Your task to perform on an android device: Add "razer kraken" to the cart on costco.com, then select checkout. Image 0: 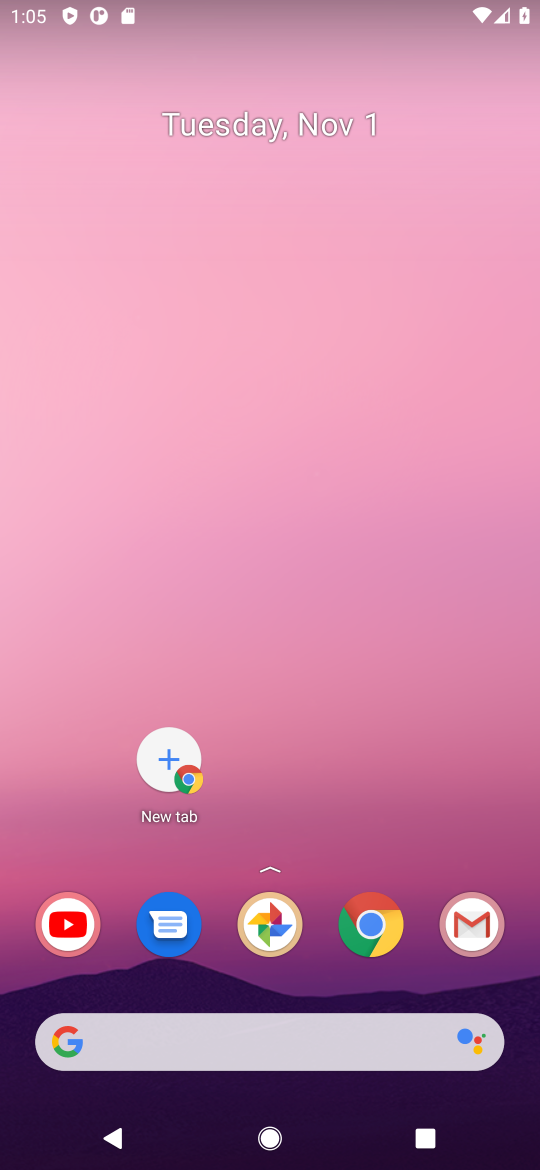
Step 0: click (386, 931)
Your task to perform on an android device: Add "razer kraken" to the cart on costco.com, then select checkout. Image 1: 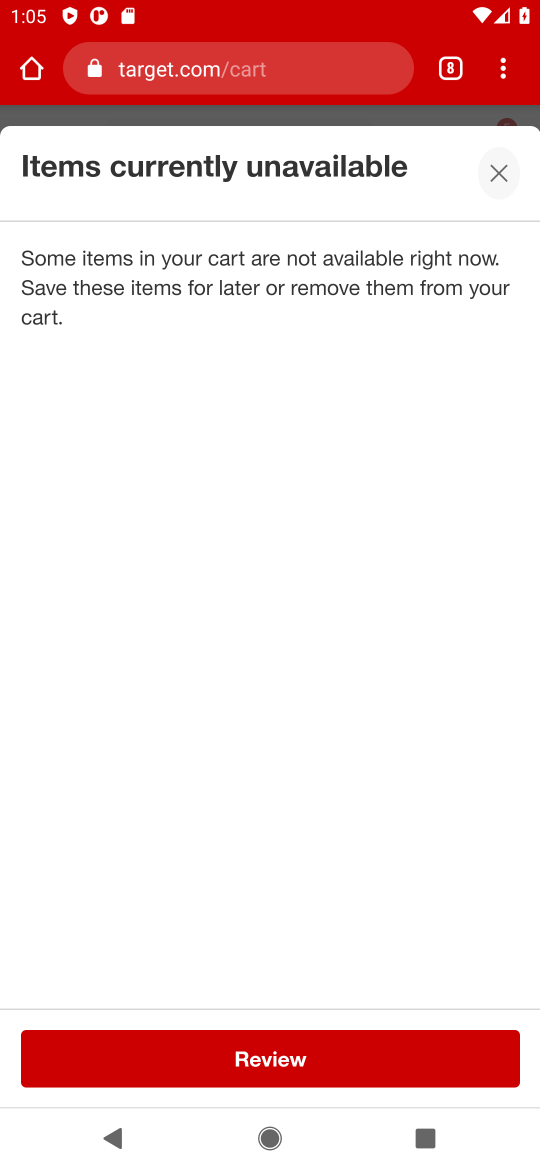
Step 1: click (262, 81)
Your task to perform on an android device: Add "razer kraken" to the cart on costco.com, then select checkout. Image 2: 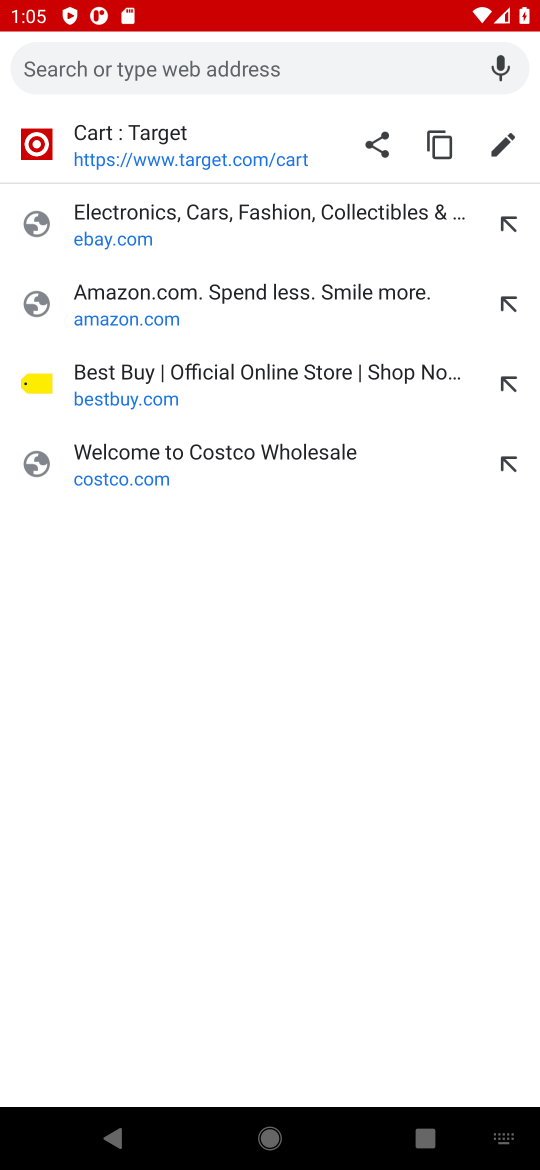
Step 2: type "costco.com"
Your task to perform on an android device: Add "razer kraken" to the cart on costco.com, then select checkout. Image 3: 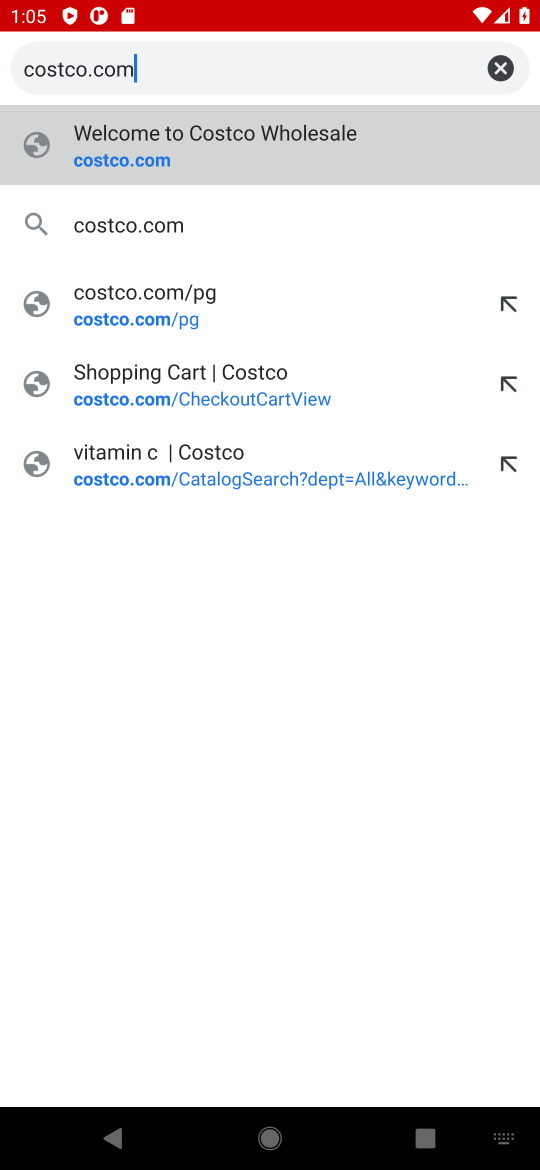
Step 3: click (162, 136)
Your task to perform on an android device: Add "razer kraken" to the cart on costco.com, then select checkout. Image 4: 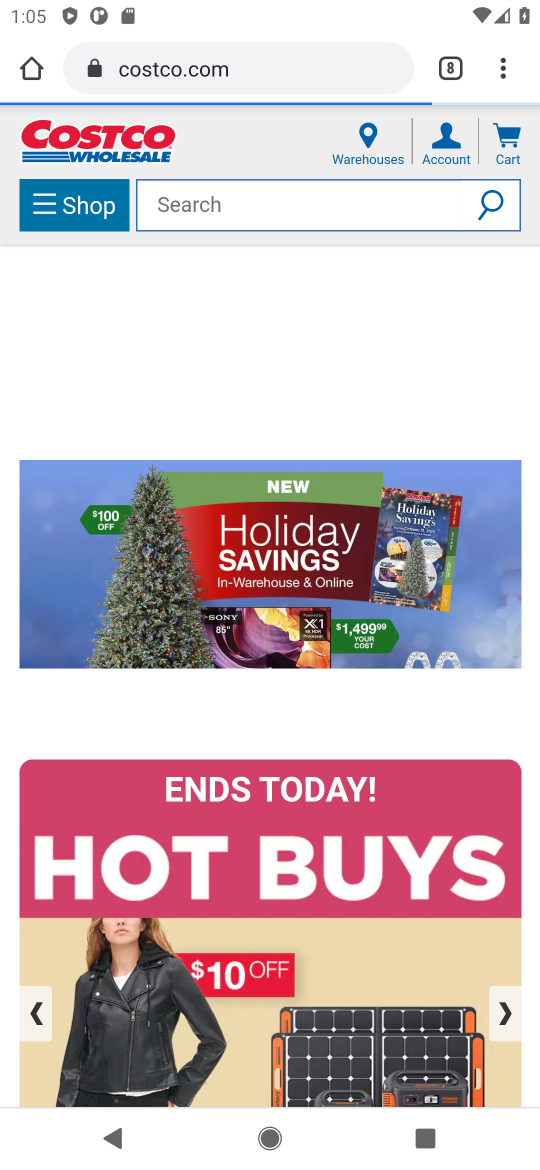
Step 4: click (315, 199)
Your task to perform on an android device: Add "razer kraken" to the cart on costco.com, then select checkout. Image 5: 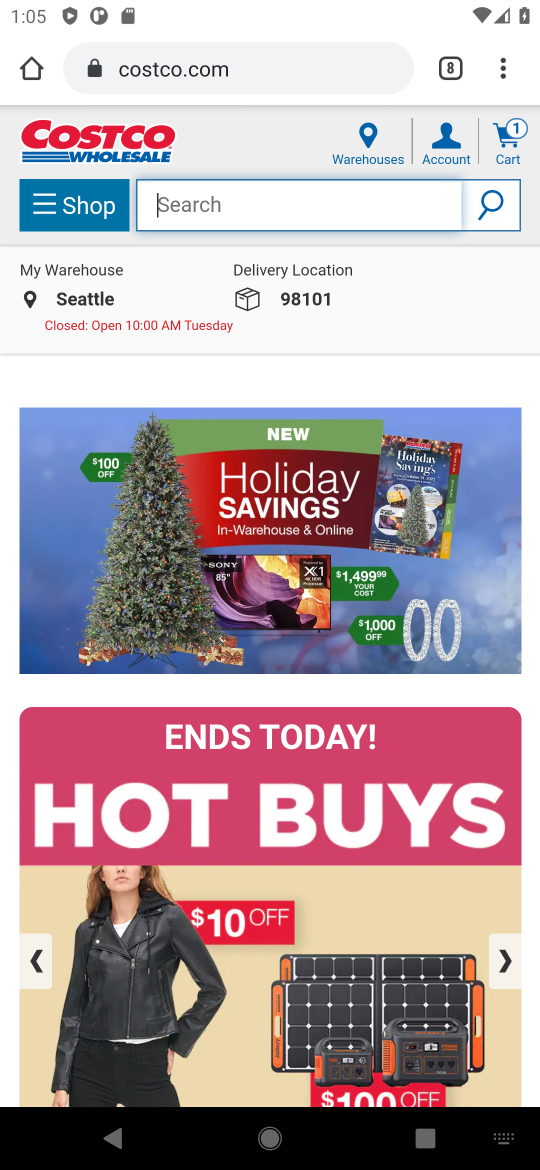
Step 5: type "razer kraken"
Your task to perform on an android device: Add "razer kraken" to the cart on costco.com, then select checkout. Image 6: 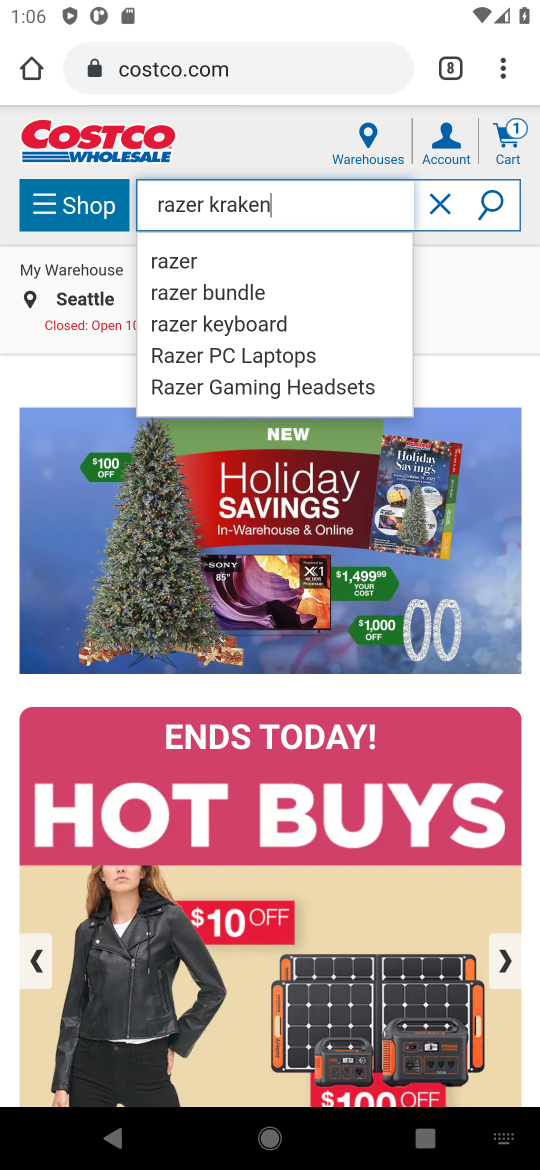
Step 6: click (176, 256)
Your task to perform on an android device: Add "razer kraken" to the cart on costco.com, then select checkout. Image 7: 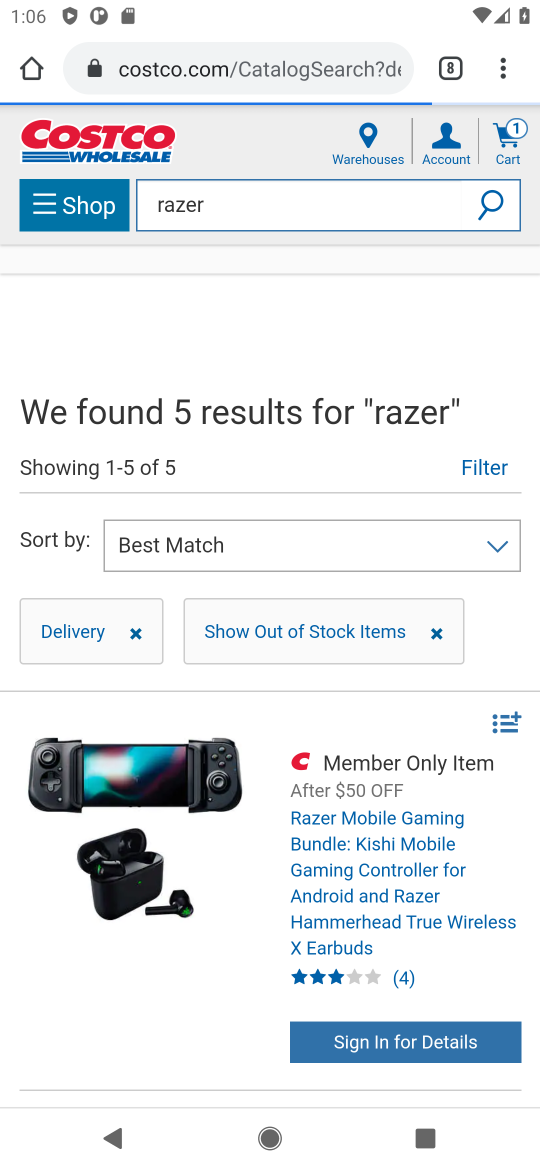
Step 7: drag from (311, 907) to (408, 276)
Your task to perform on an android device: Add "razer kraken" to the cart on costco.com, then select checkout. Image 8: 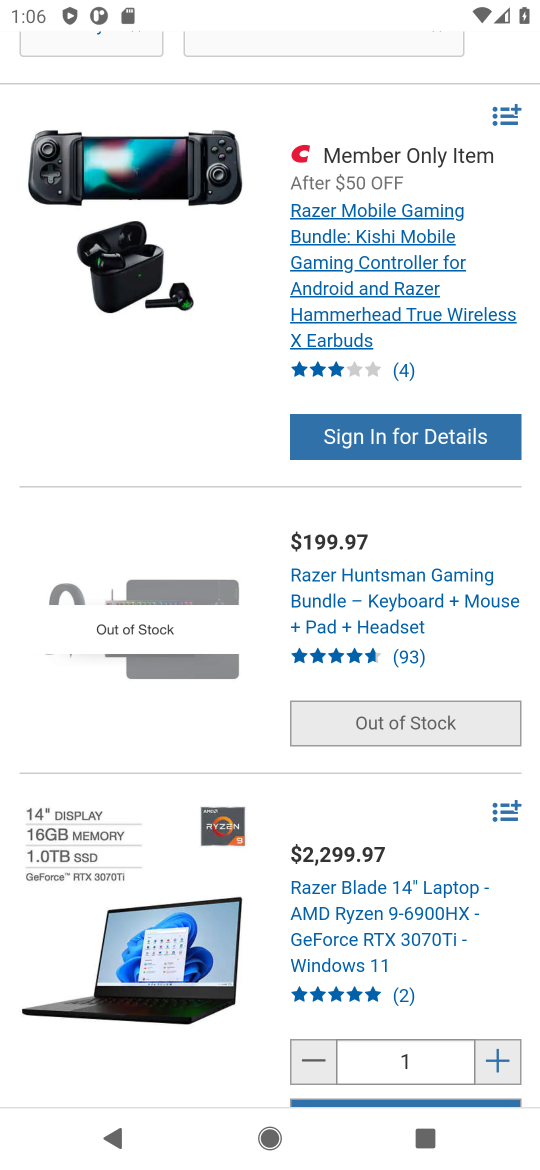
Step 8: drag from (367, 951) to (399, 438)
Your task to perform on an android device: Add "razer kraken" to the cart on costco.com, then select checkout. Image 9: 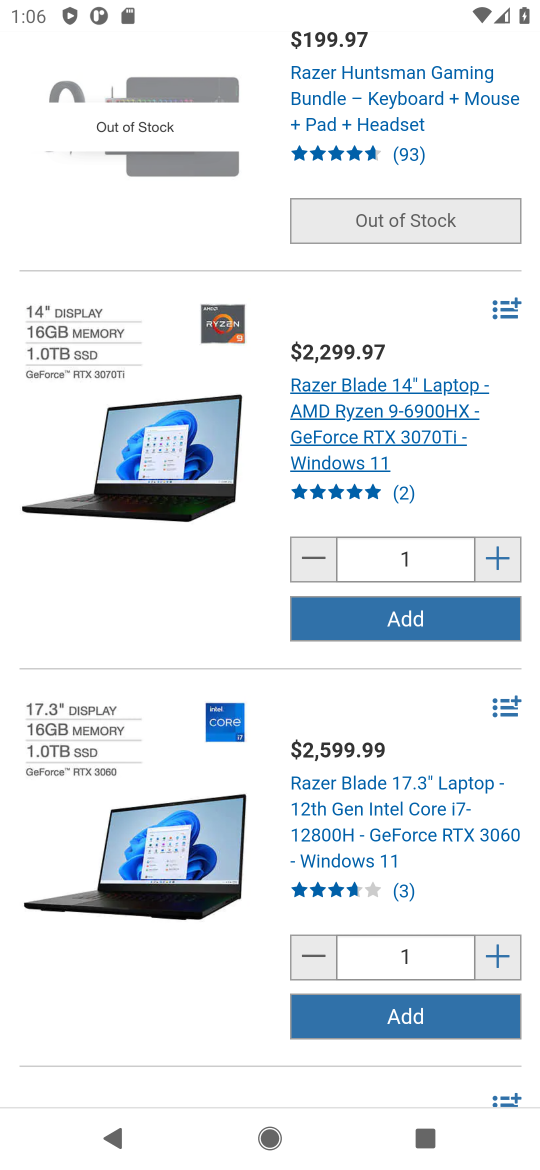
Step 9: drag from (274, 242) to (234, 794)
Your task to perform on an android device: Add "razer kraken" to the cart on costco.com, then select checkout. Image 10: 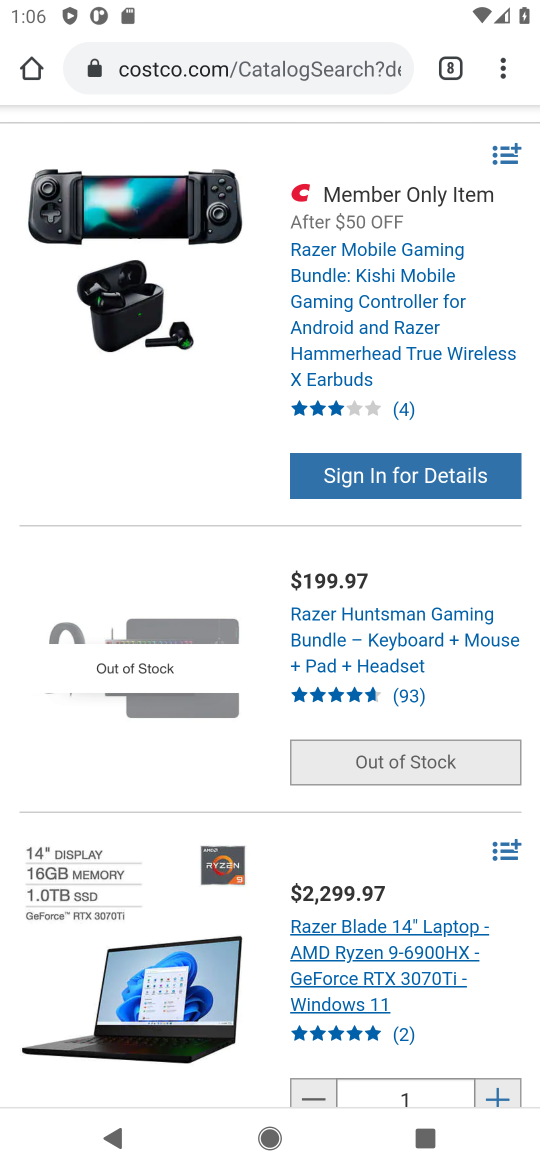
Step 10: click (322, 266)
Your task to perform on an android device: Add "razer kraken" to the cart on costco.com, then select checkout. Image 11: 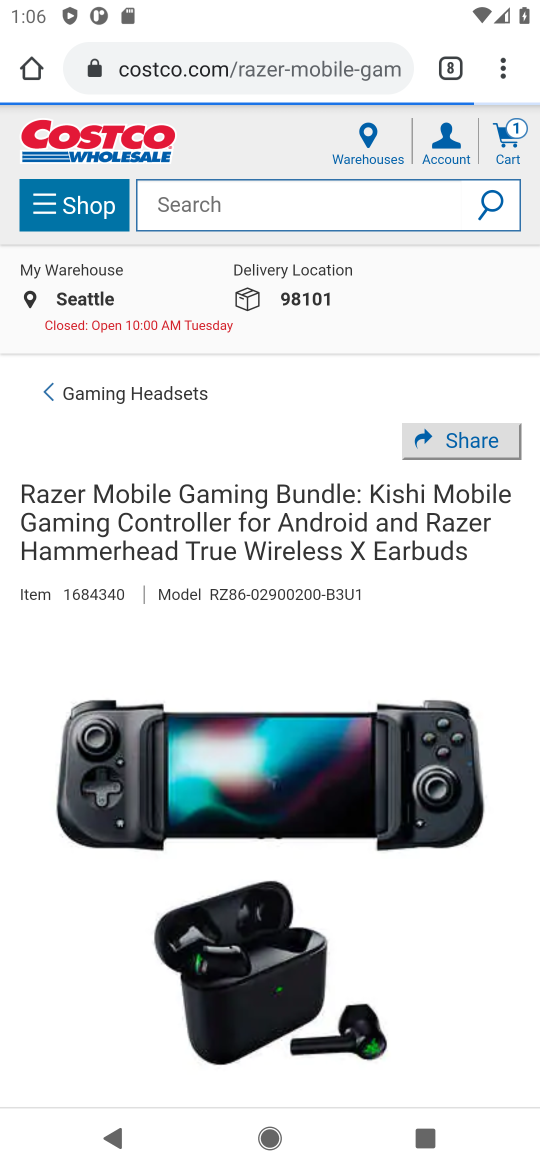
Step 11: drag from (274, 666) to (337, 153)
Your task to perform on an android device: Add "razer kraken" to the cart on costco.com, then select checkout. Image 12: 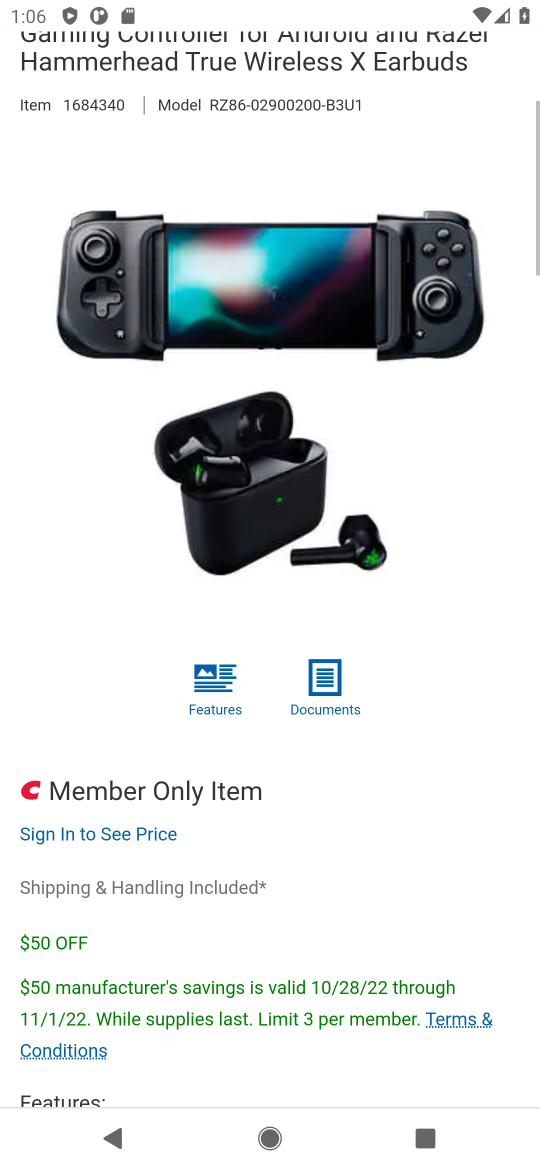
Step 12: drag from (325, 906) to (339, 489)
Your task to perform on an android device: Add "razer kraken" to the cart on costco.com, then select checkout. Image 13: 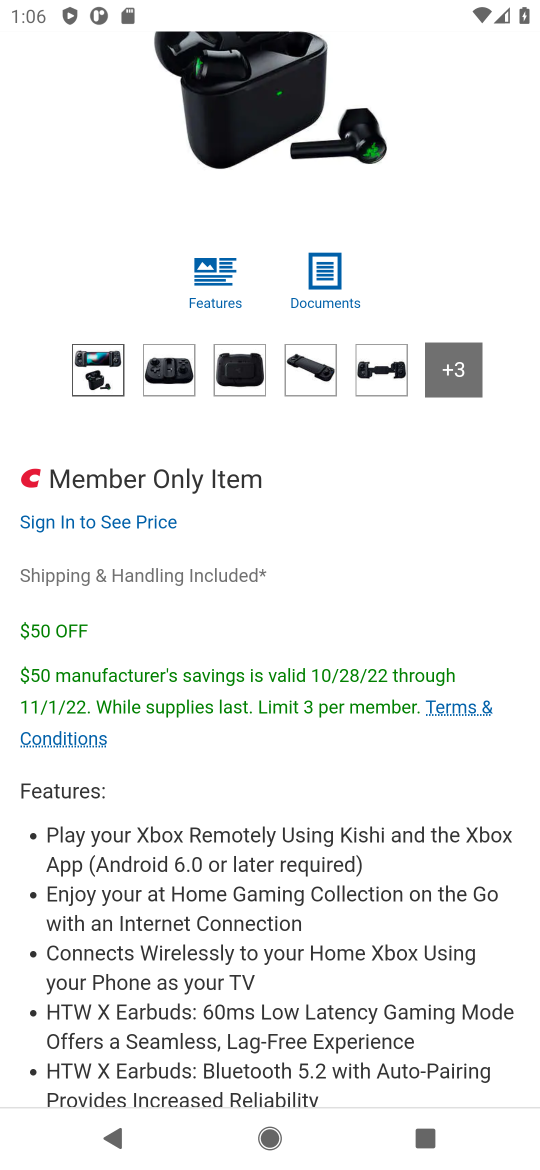
Step 13: drag from (237, 723) to (278, 469)
Your task to perform on an android device: Add "razer kraken" to the cart on costco.com, then select checkout. Image 14: 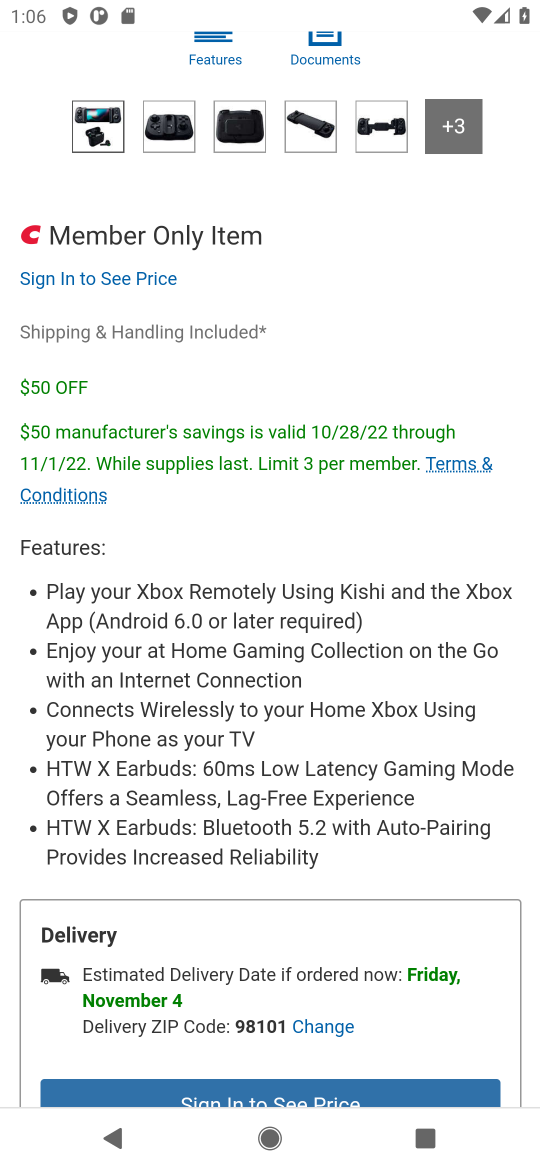
Step 14: drag from (402, 846) to (378, 495)
Your task to perform on an android device: Add "razer kraken" to the cart on costco.com, then select checkout. Image 15: 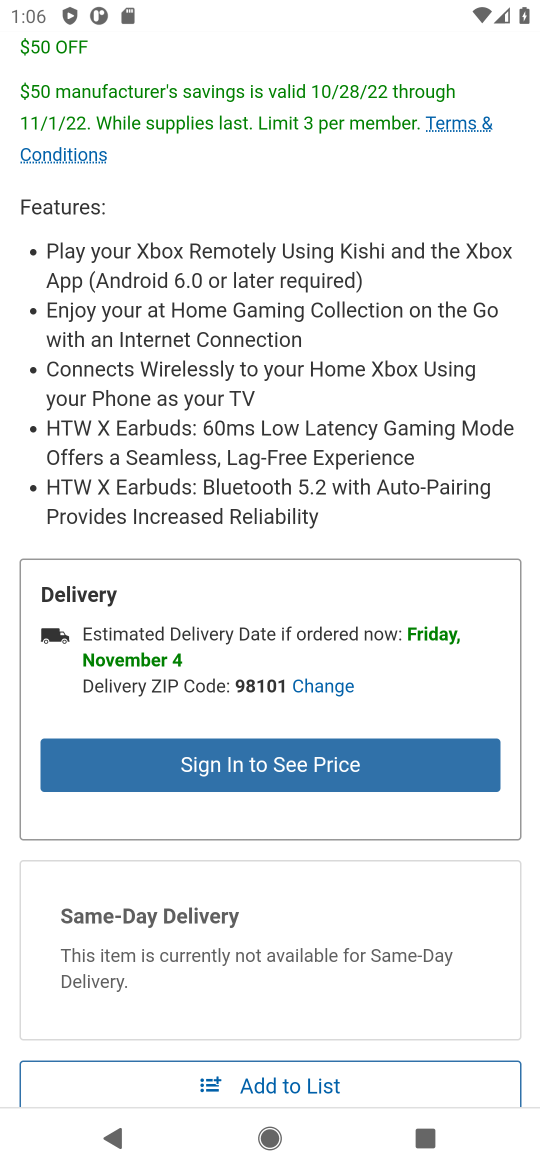
Step 15: drag from (211, 885) to (255, 639)
Your task to perform on an android device: Add "razer kraken" to the cart on costco.com, then select checkout. Image 16: 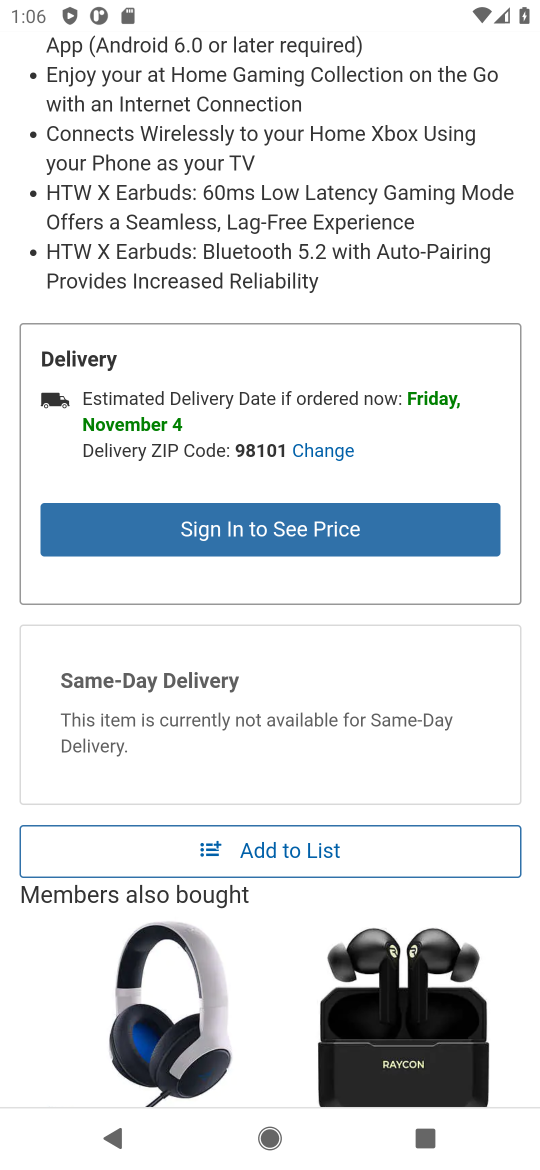
Step 16: click (288, 855)
Your task to perform on an android device: Add "razer kraken" to the cart on costco.com, then select checkout. Image 17: 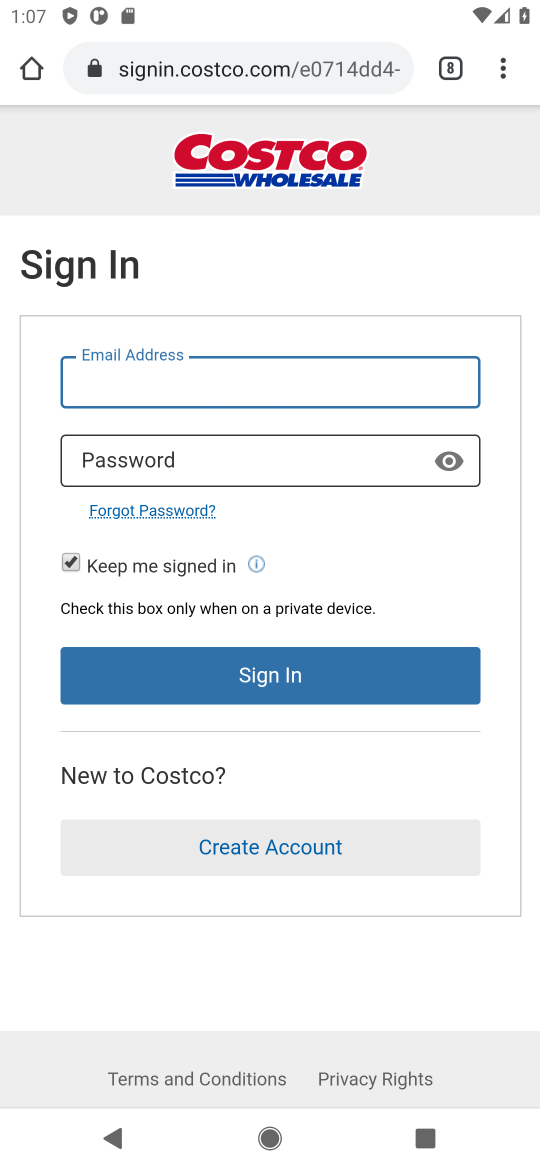
Step 17: click (290, 675)
Your task to perform on an android device: Add "razer kraken" to the cart on costco.com, then select checkout. Image 18: 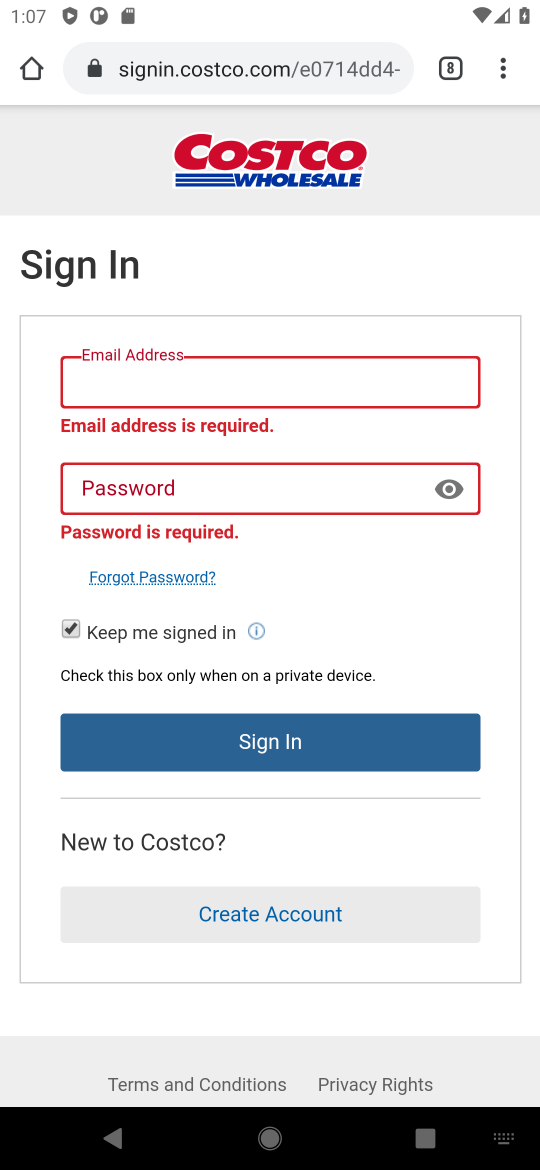
Step 18: press back button
Your task to perform on an android device: Add "razer kraken" to the cart on costco.com, then select checkout. Image 19: 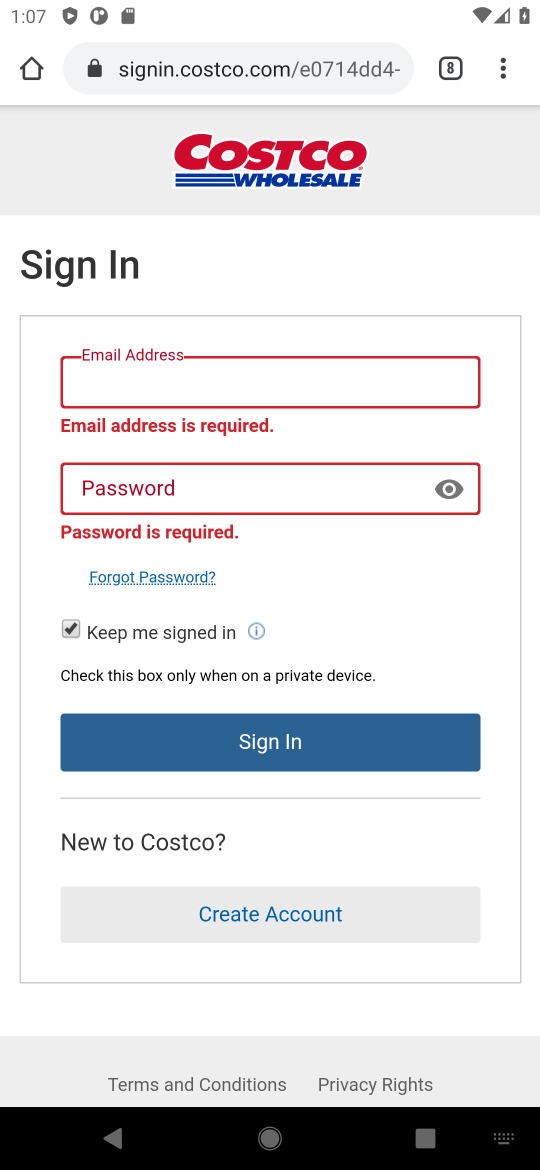
Step 19: press back button
Your task to perform on an android device: Add "razer kraken" to the cart on costco.com, then select checkout. Image 20: 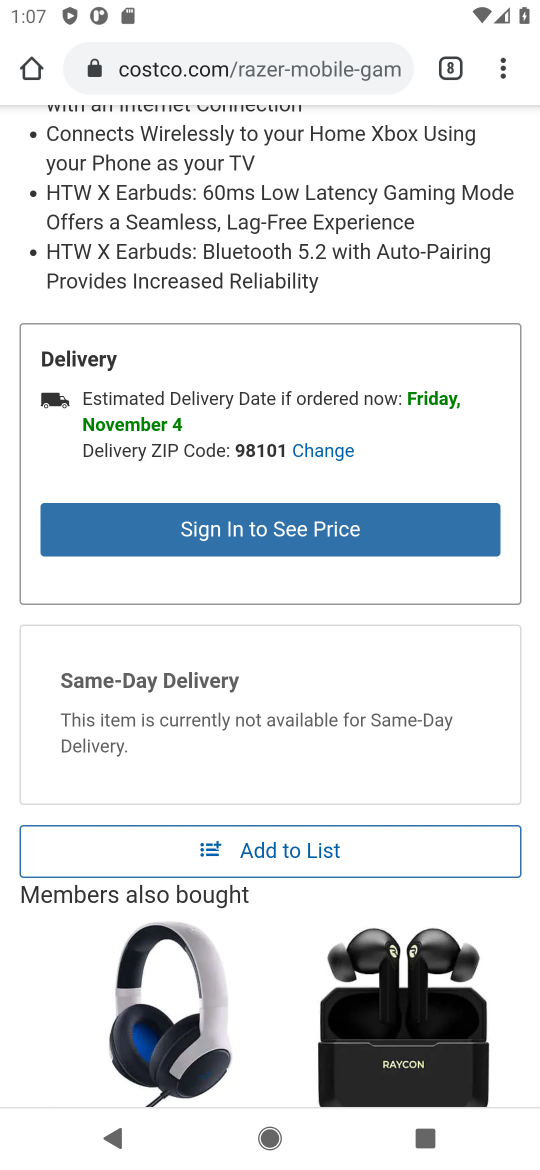
Step 20: click (292, 897)
Your task to perform on an android device: Add "razer kraken" to the cart on costco.com, then select checkout. Image 21: 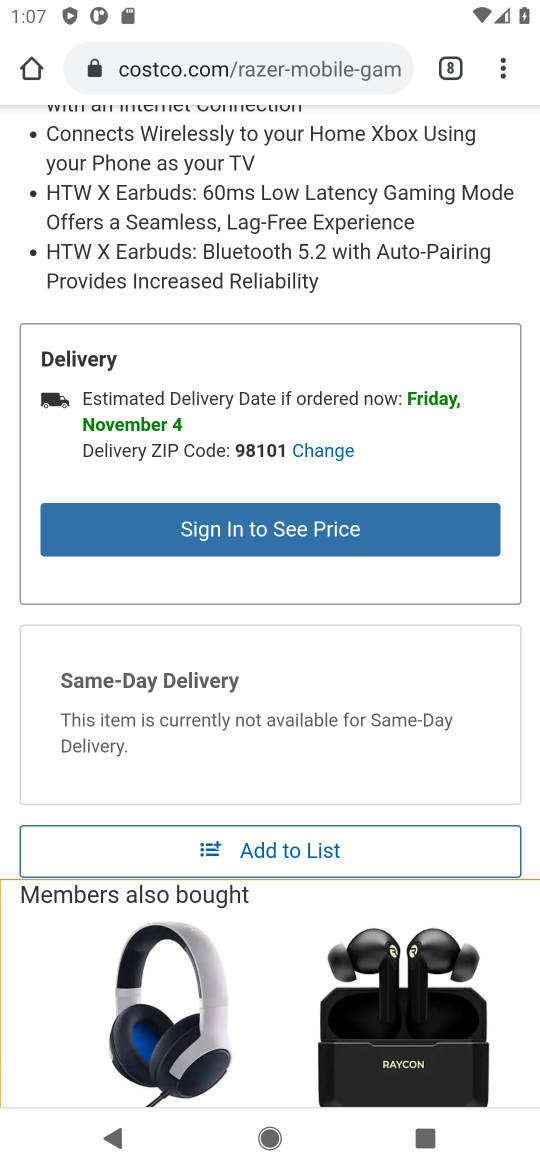
Step 21: click (285, 836)
Your task to perform on an android device: Add "razer kraken" to the cart on costco.com, then select checkout. Image 22: 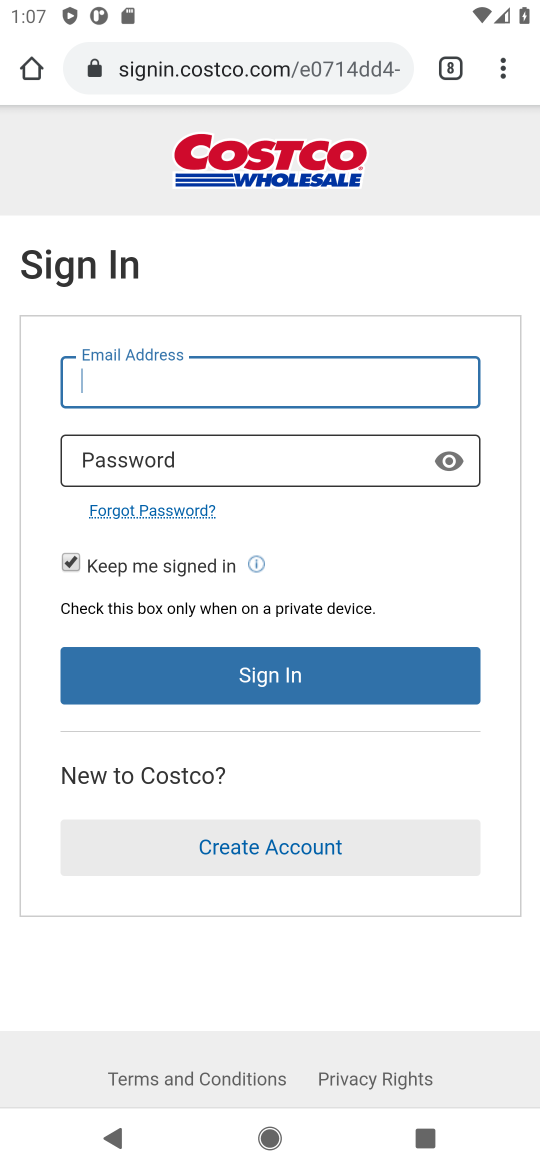
Step 22: press back button
Your task to perform on an android device: Add "razer kraken" to the cart on costco.com, then select checkout. Image 23: 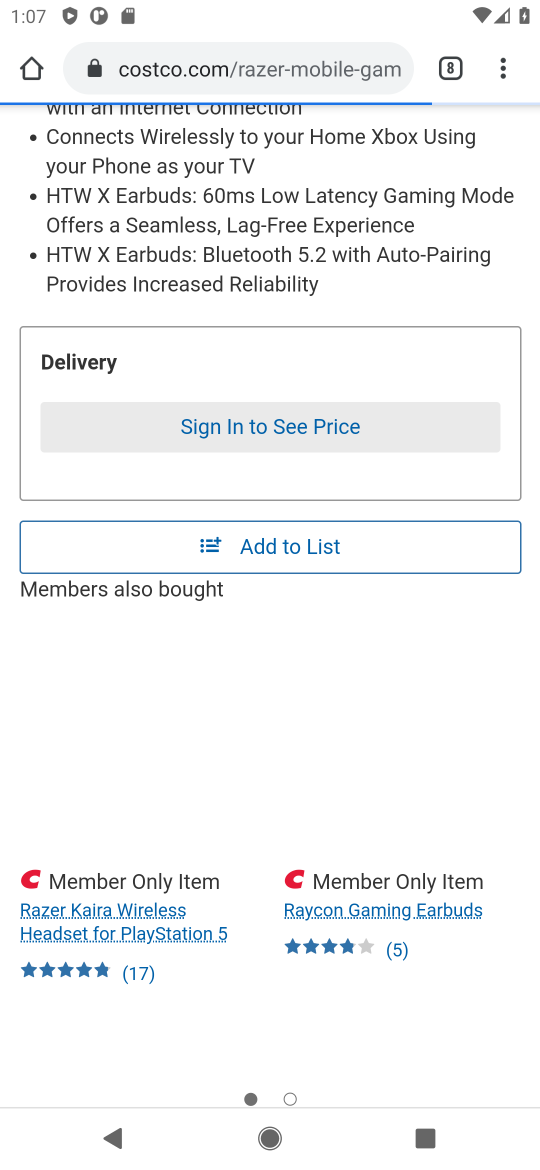
Step 23: drag from (311, 365) to (298, 880)
Your task to perform on an android device: Add "razer kraken" to the cart on costco.com, then select checkout. Image 24: 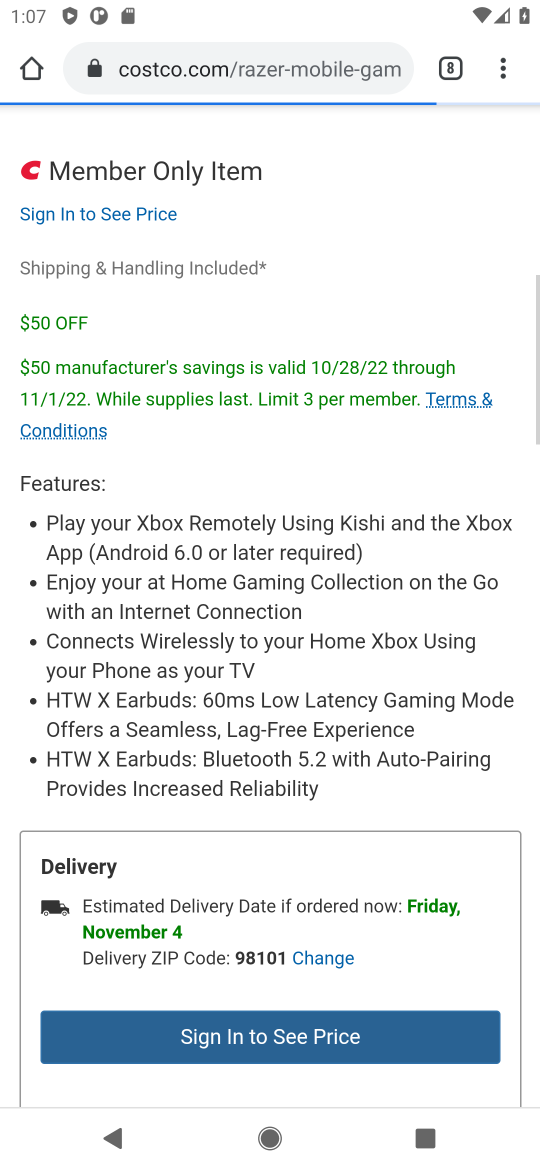
Step 24: drag from (254, 491) to (248, 839)
Your task to perform on an android device: Add "razer kraken" to the cart on costco.com, then select checkout. Image 25: 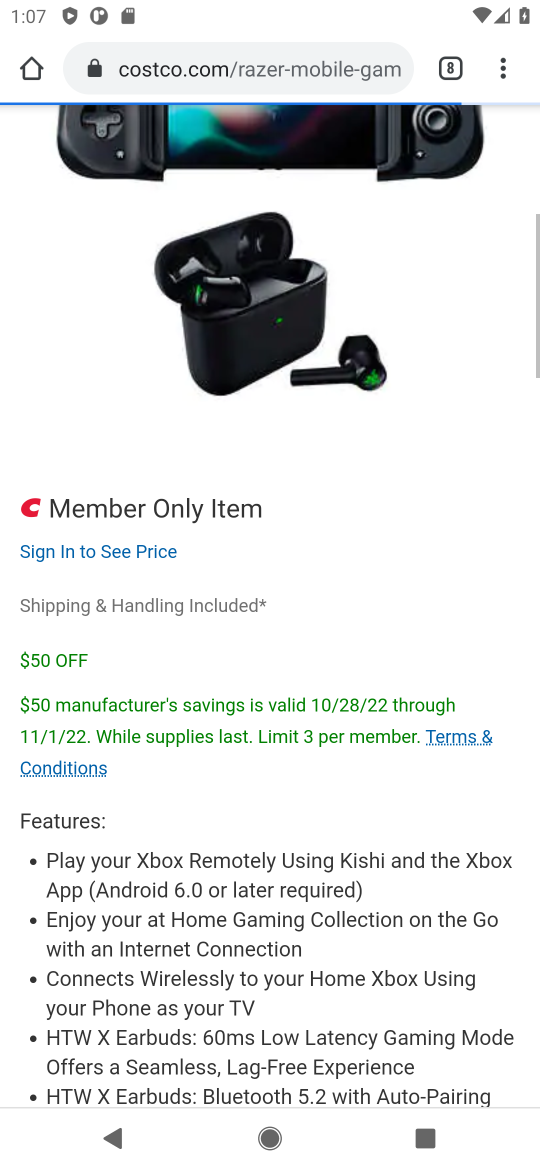
Step 25: drag from (164, 433) to (161, 878)
Your task to perform on an android device: Add "razer kraken" to the cart on costco.com, then select checkout. Image 26: 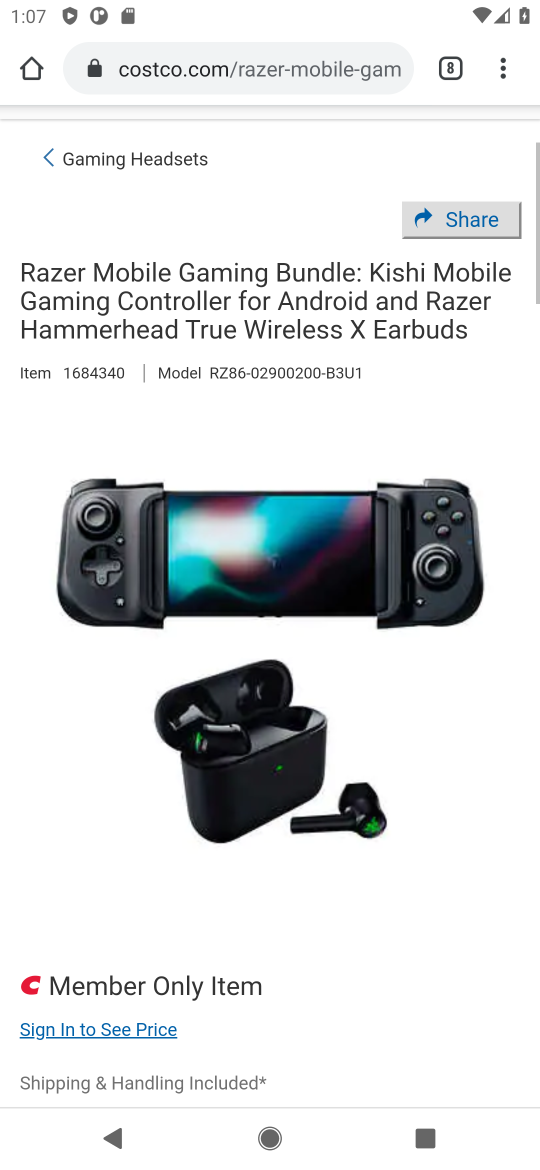
Step 26: drag from (164, 359) to (152, 839)
Your task to perform on an android device: Add "razer kraken" to the cart on costco.com, then select checkout. Image 27: 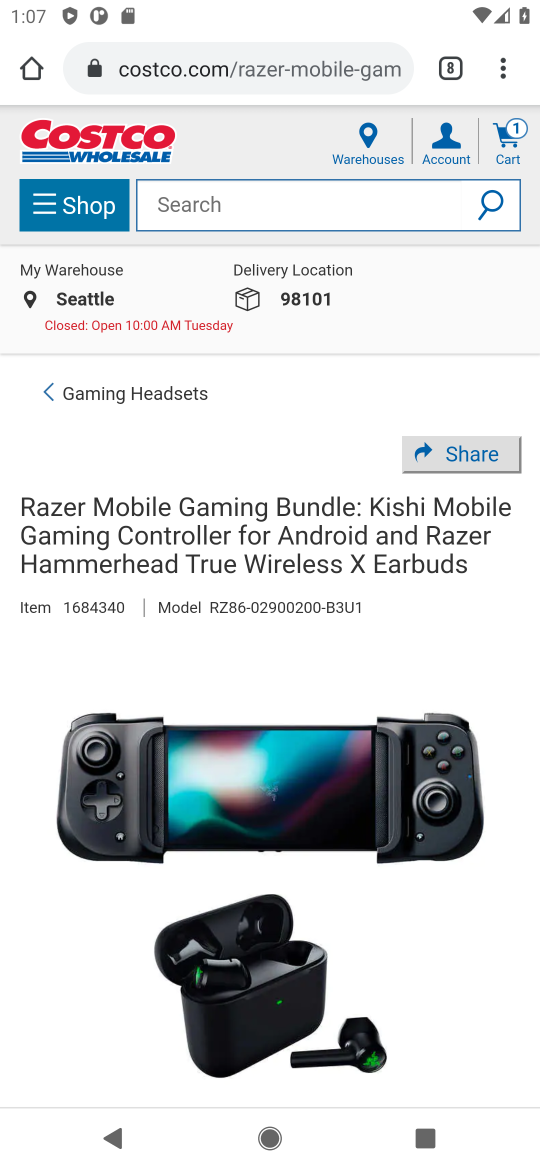
Step 27: press back button
Your task to perform on an android device: Add "razer kraken" to the cart on costco.com, then select checkout. Image 28: 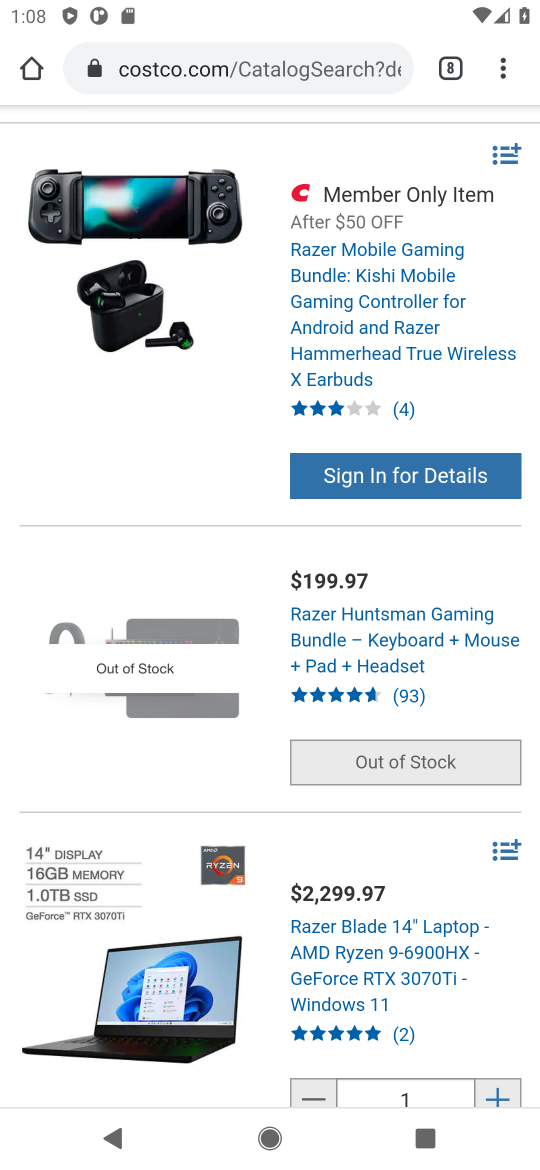
Step 28: drag from (281, 851) to (341, 580)
Your task to perform on an android device: Add "razer kraken" to the cart on costco.com, then select checkout. Image 29: 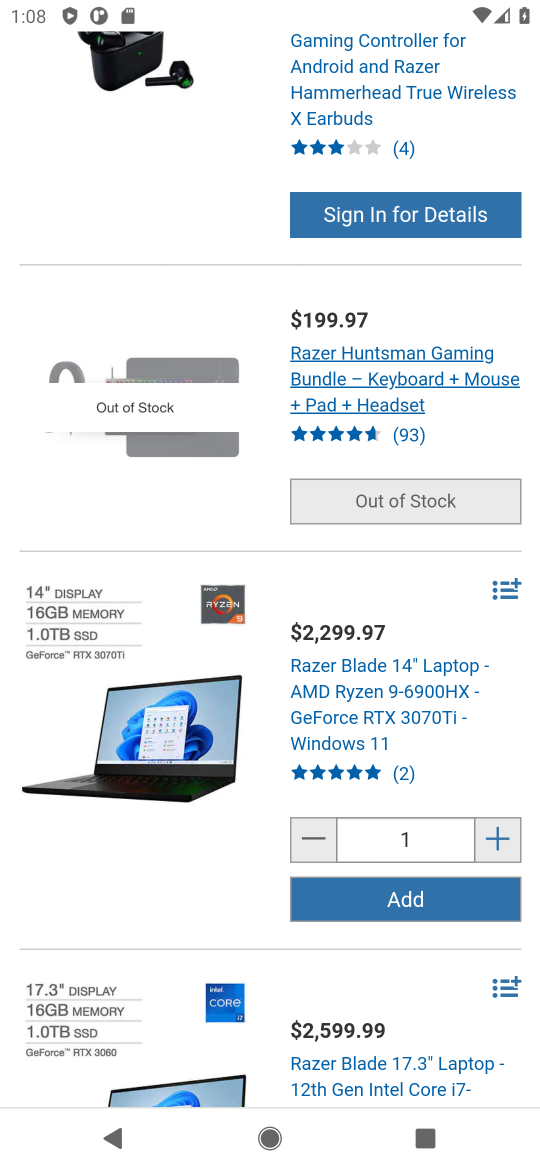
Step 29: drag from (157, 800) to (196, 568)
Your task to perform on an android device: Add "razer kraken" to the cart on costco.com, then select checkout. Image 30: 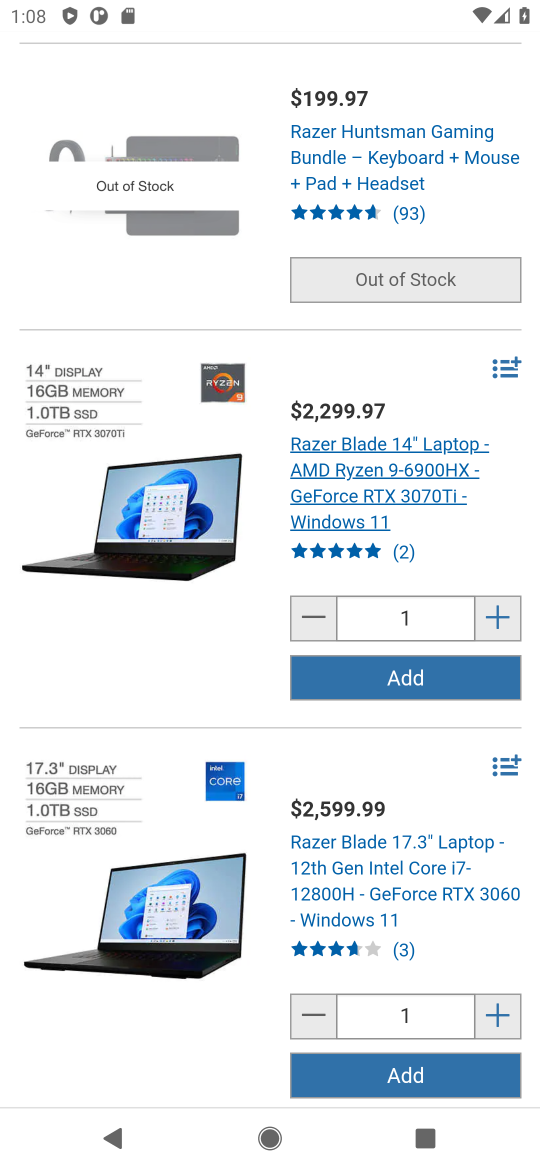
Step 30: drag from (162, 544) to (144, 1160)
Your task to perform on an android device: Add "razer kraken" to the cart on costco.com, then select checkout. Image 31: 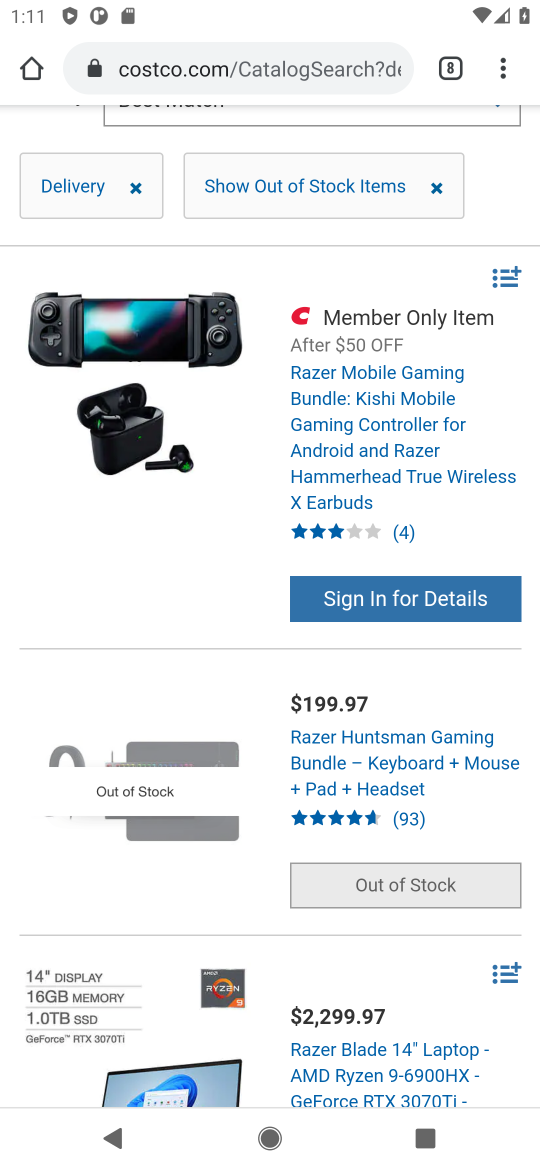
Step 31: drag from (147, 834) to (250, 458)
Your task to perform on an android device: Add "razer kraken" to the cart on costco.com, then select checkout. Image 32: 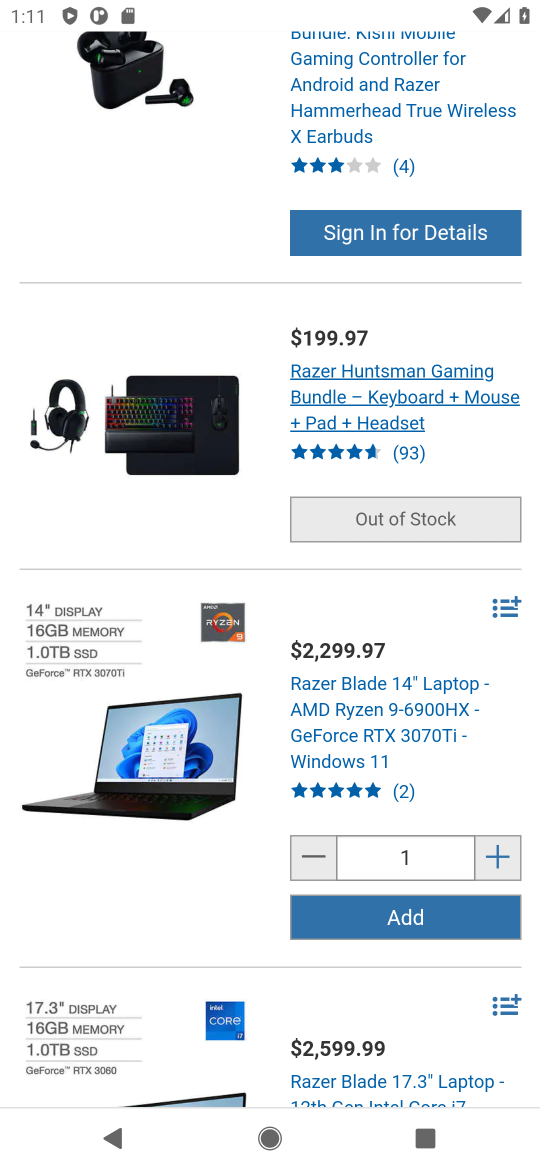
Step 32: drag from (178, 860) to (269, 420)
Your task to perform on an android device: Add "razer kraken" to the cart on costco.com, then select checkout. Image 33: 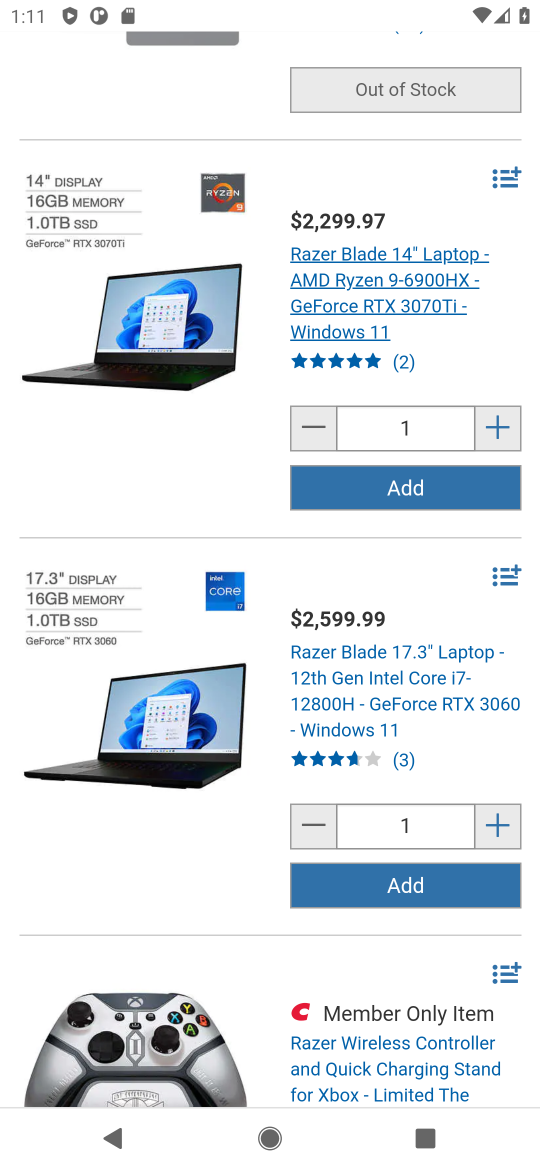
Step 33: click (307, 678)
Your task to perform on an android device: Add "razer kraken" to the cart on costco.com, then select checkout. Image 34: 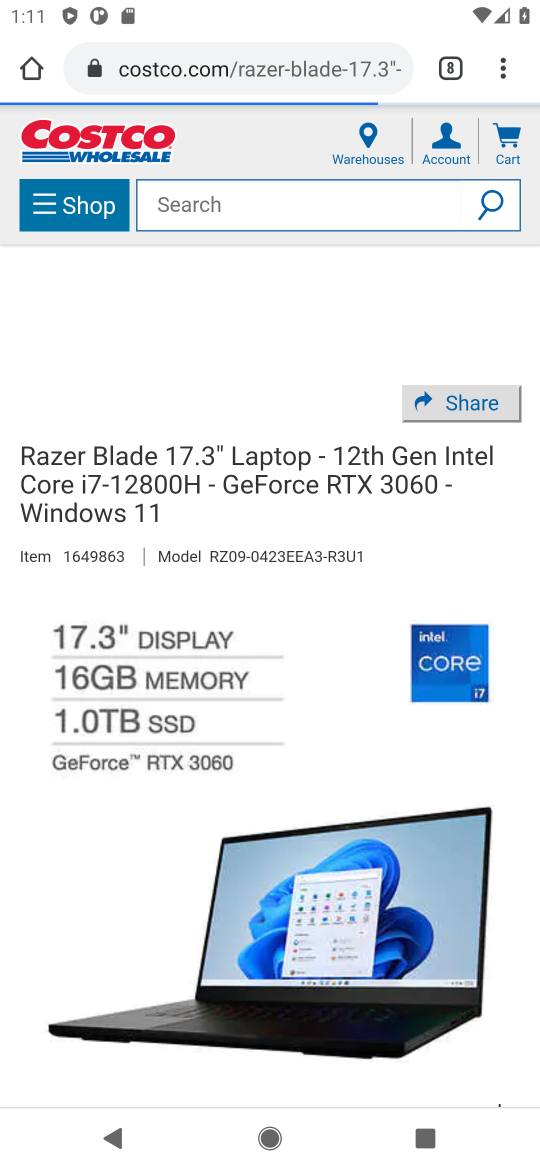
Step 34: drag from (107, 841) to (292, 98)
Your task to perform on an android device: Add "razer kraken" to the cart on costco.com, then select checkout. Image 35: 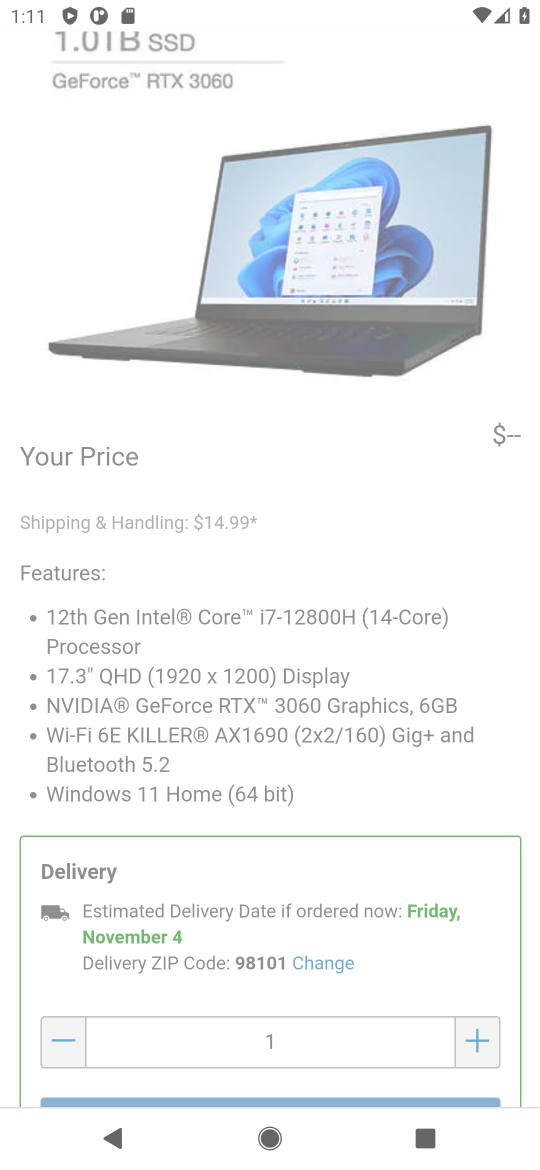
Step 35: drag from (204, 856) to (233, 364)
Your task to perform on an android device: Add "razer kraken" to the cart on costco.com, then select checkout. Image 36: 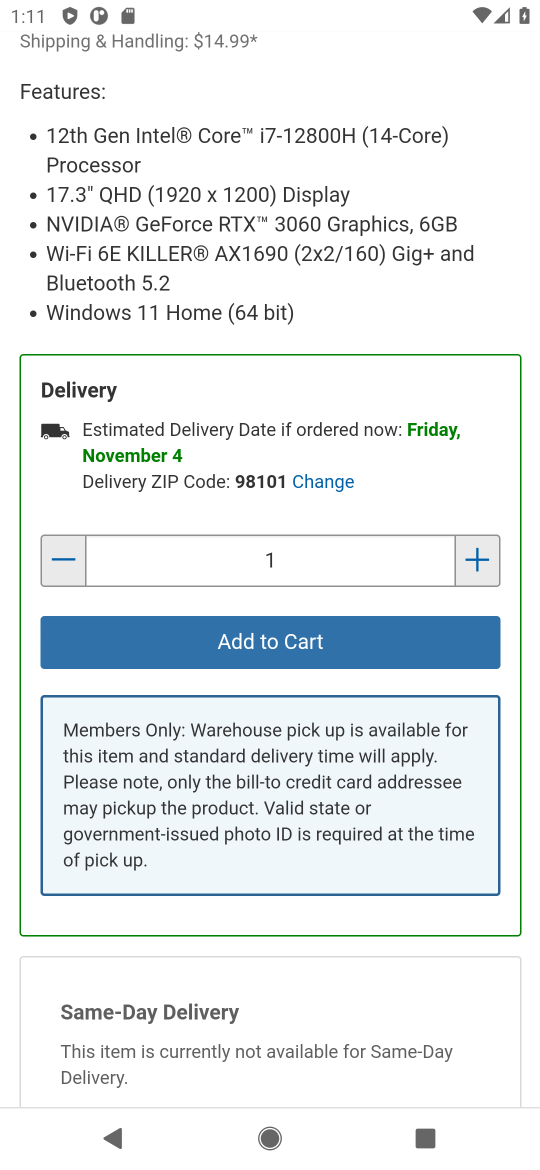
Step 36: click (254, 646)
Your task to perform on an android device: Add "razer kraken" to the cart on costco.com, then select checkout. Image 37: 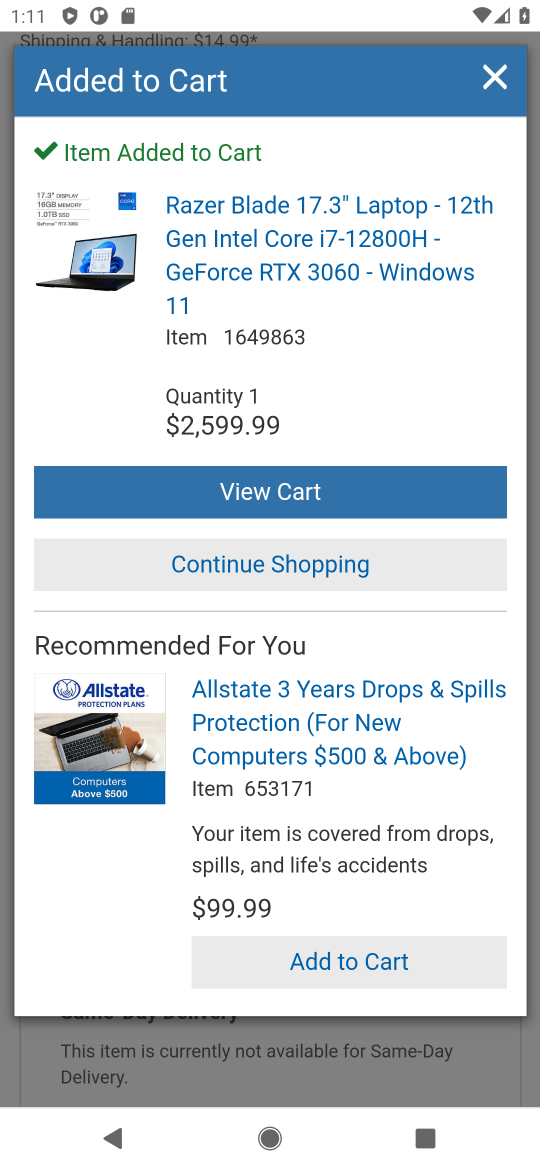
Step 37: click (270, 500)
Your task to perform on an android device: Add "razer kraken" to the cart on costco.com, then select checkout. Image 38: 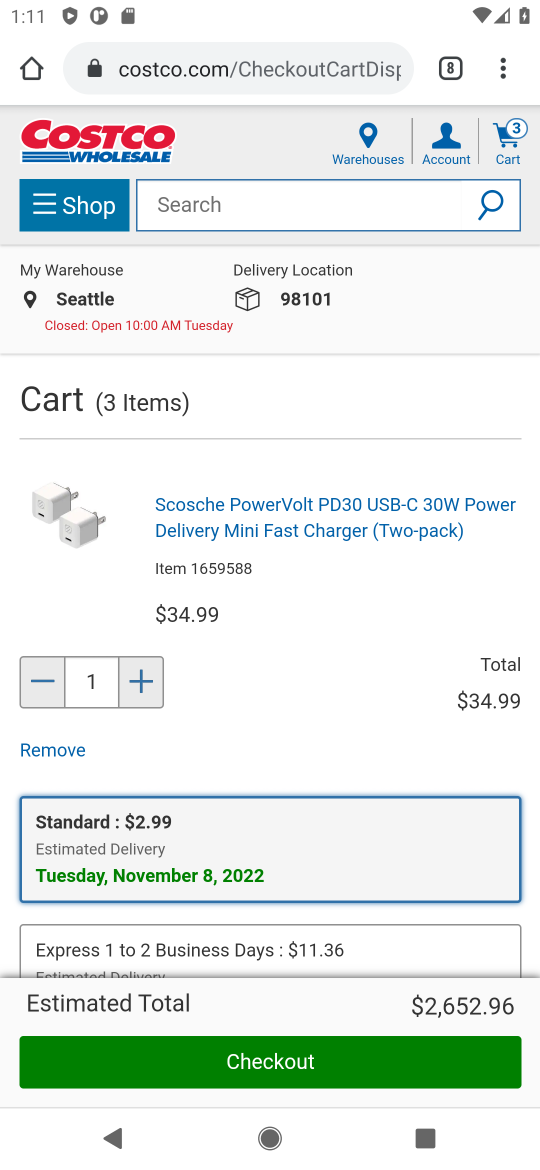
Step 38: click (259, 1063)
Your task to perform on an android device: Add "razer kraken" to the cart on costco.com, then select checkout. Image 39: 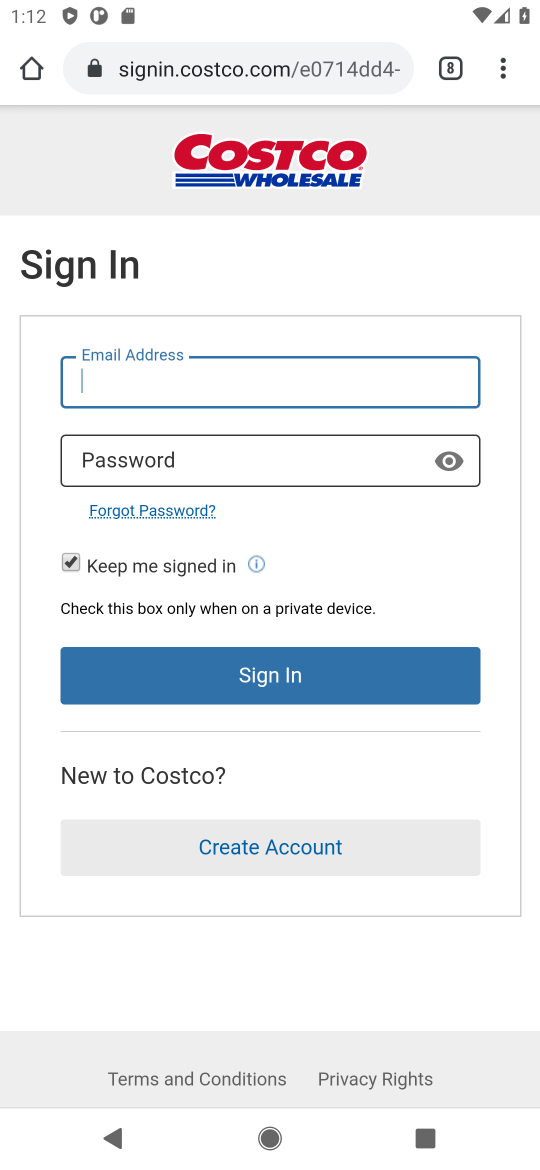
Step 39: task complete